Your task to perform on an android device: turn vacation reply on in the gmail app Image 0: 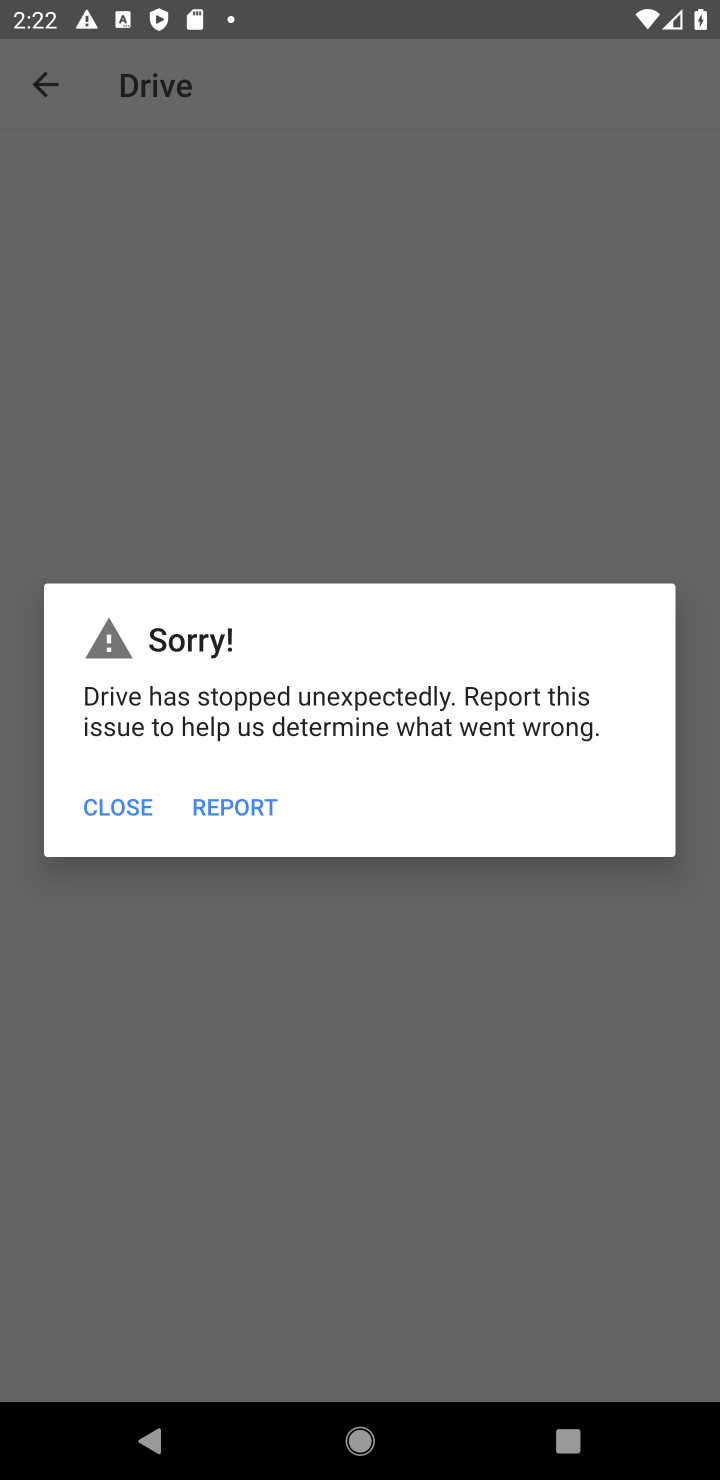
Step 0: press home button
Your task to perform on an android device: turn vacation reply on in the gmail app Image 1: 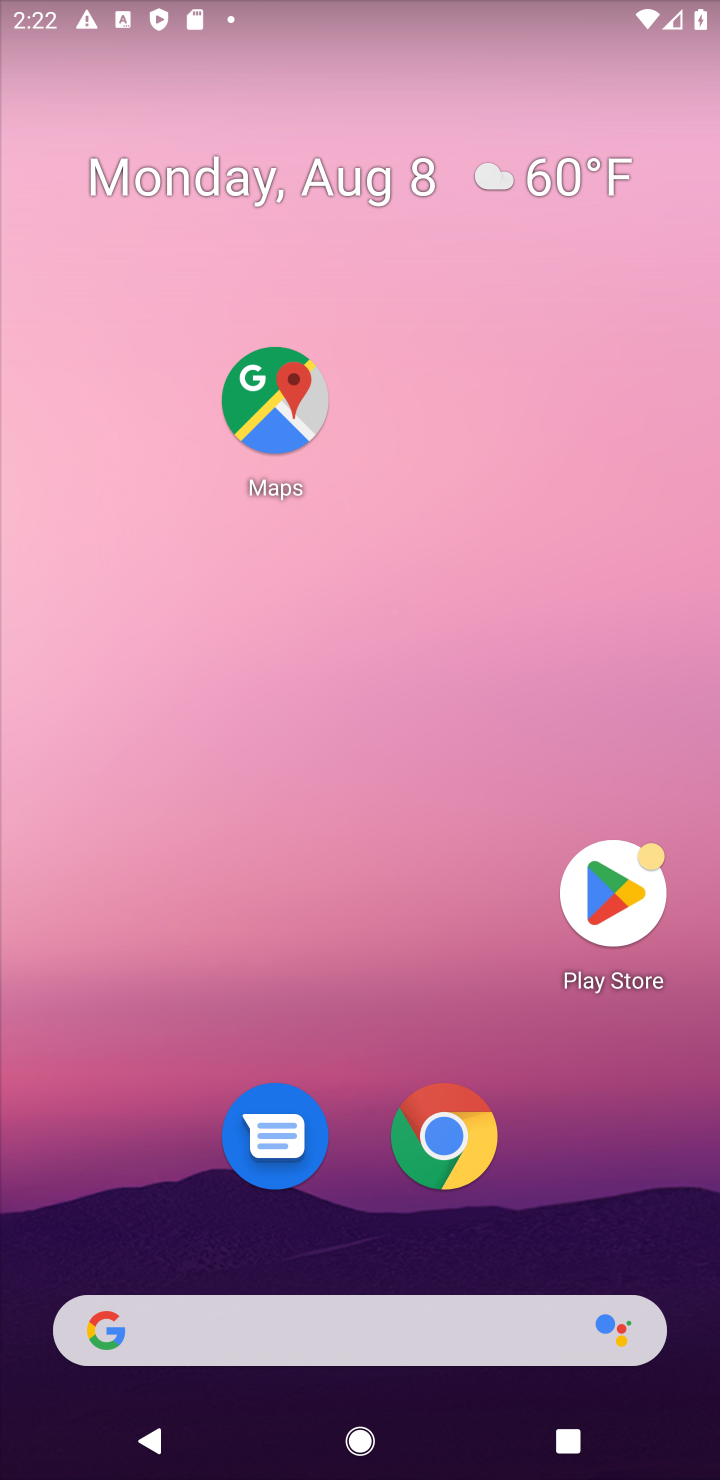
Step 1: drag from (43, 1458) to (229, 889)
Your task to perform on an android device: turn vacation reply on in the gmail app Image 2: 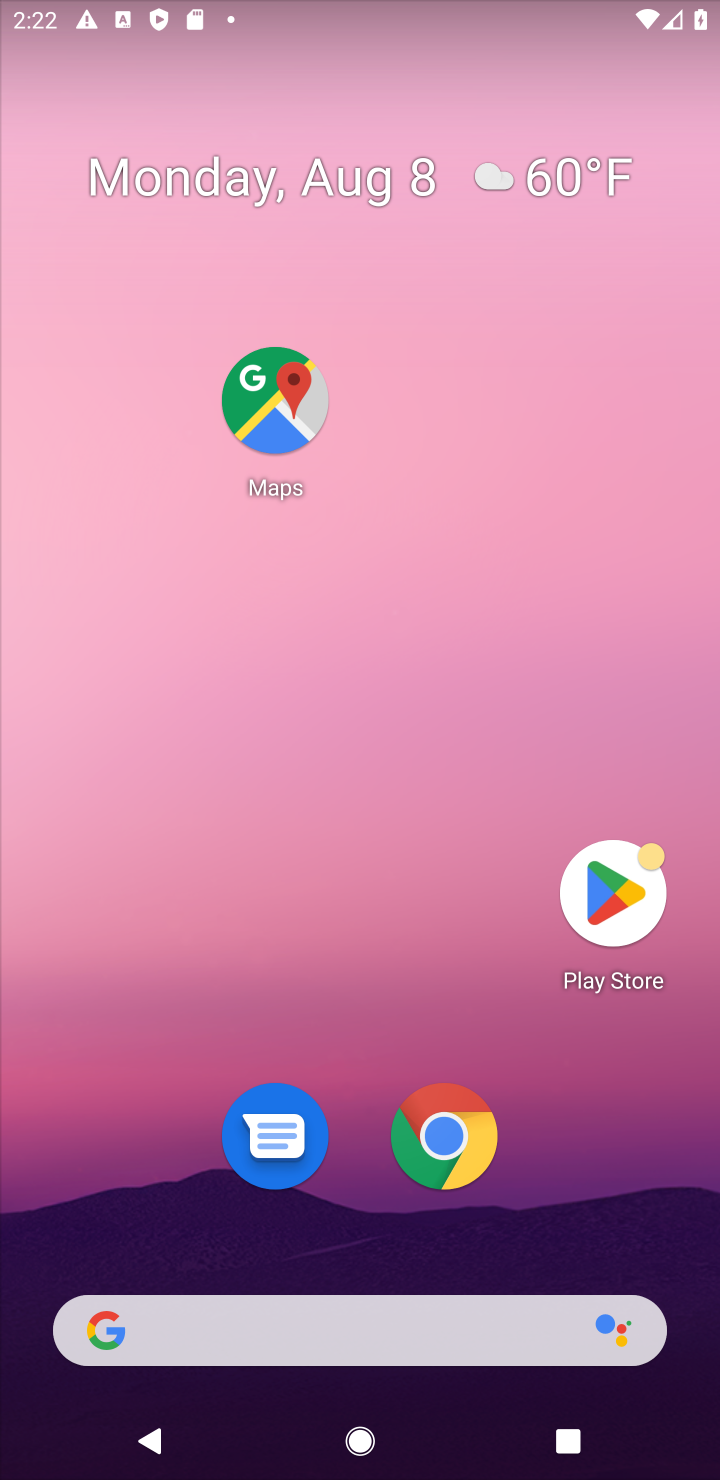
Step 2: drag from (65, 1413) to (618, 328)
Your task to perform on an android device: turn vacation reply on in the gmail app Image 3: 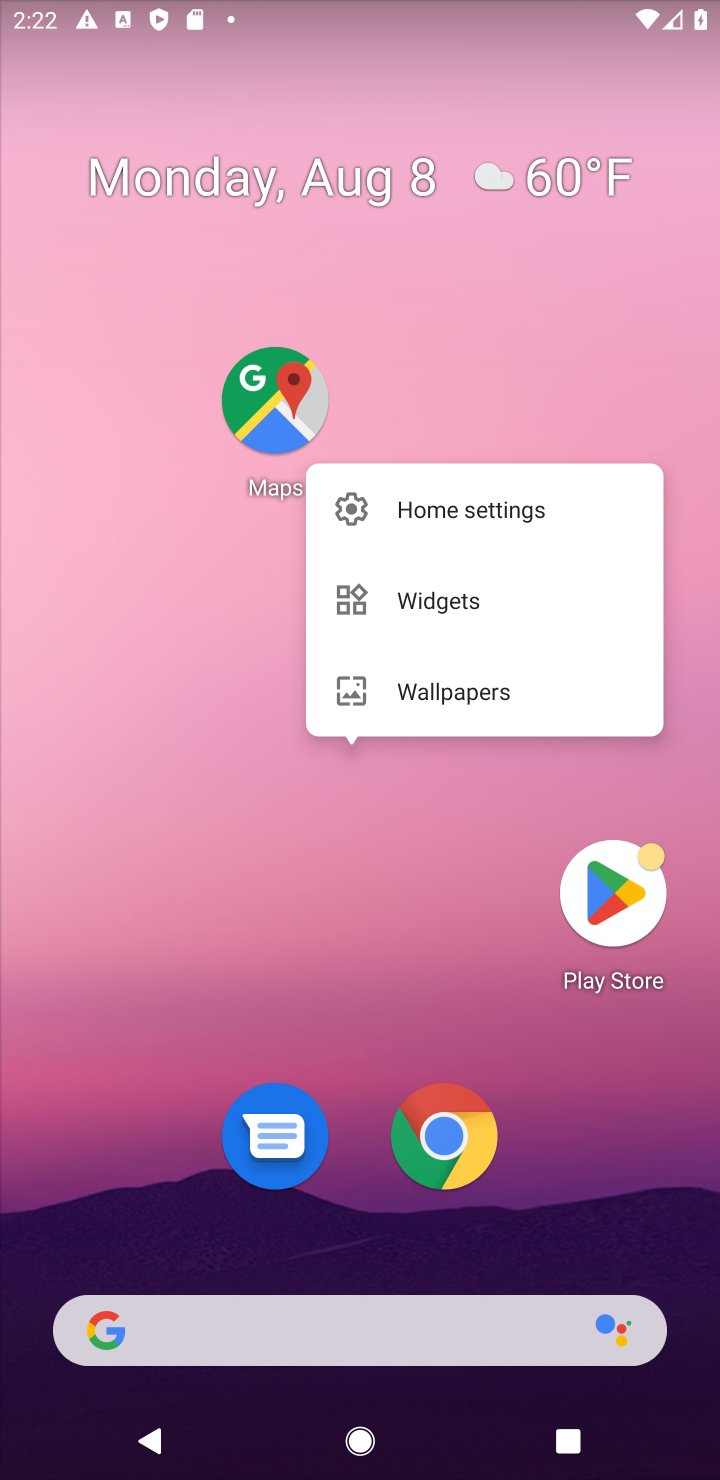
Step 3: drag from (40, 1440) to (415, 249)
Your task to perform on an android device: turn vacation reply on in the gmail app Image 4: 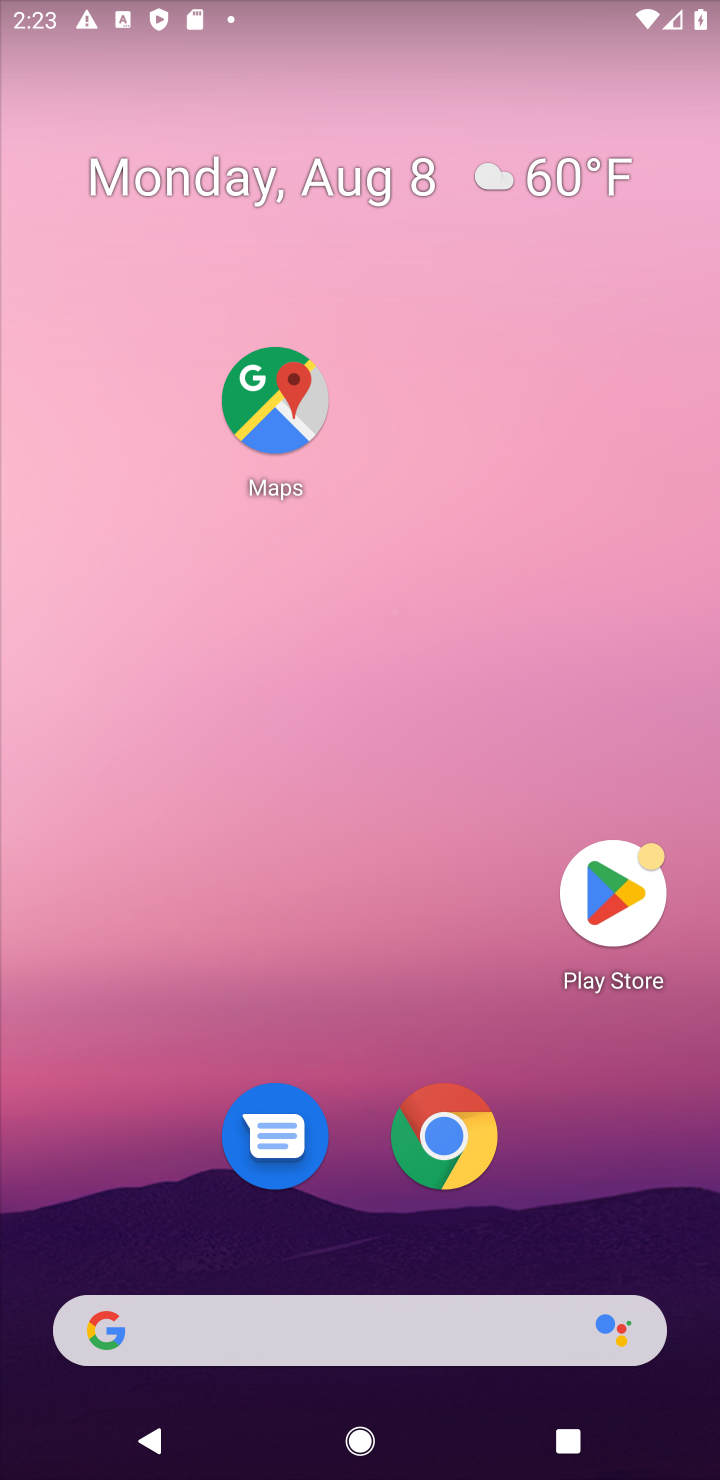
Step 4: drag from (101, 1331) to (338, 462)
Your task to perform on an android device: turn vacation reply on in the gmail app Image 5: 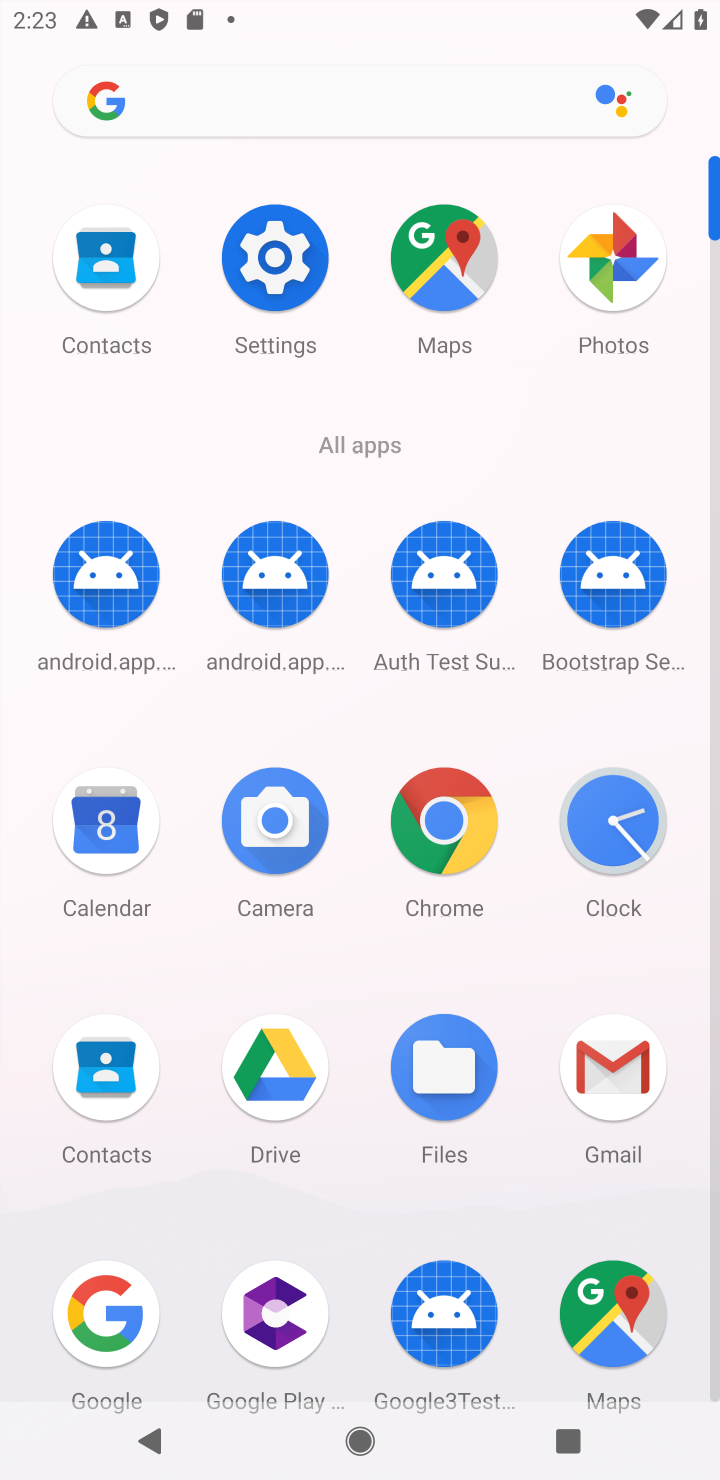
Step 5: click (614, 1064)
Your task to perform on an android device: turn vacation reply on in the gmail app Image 6: 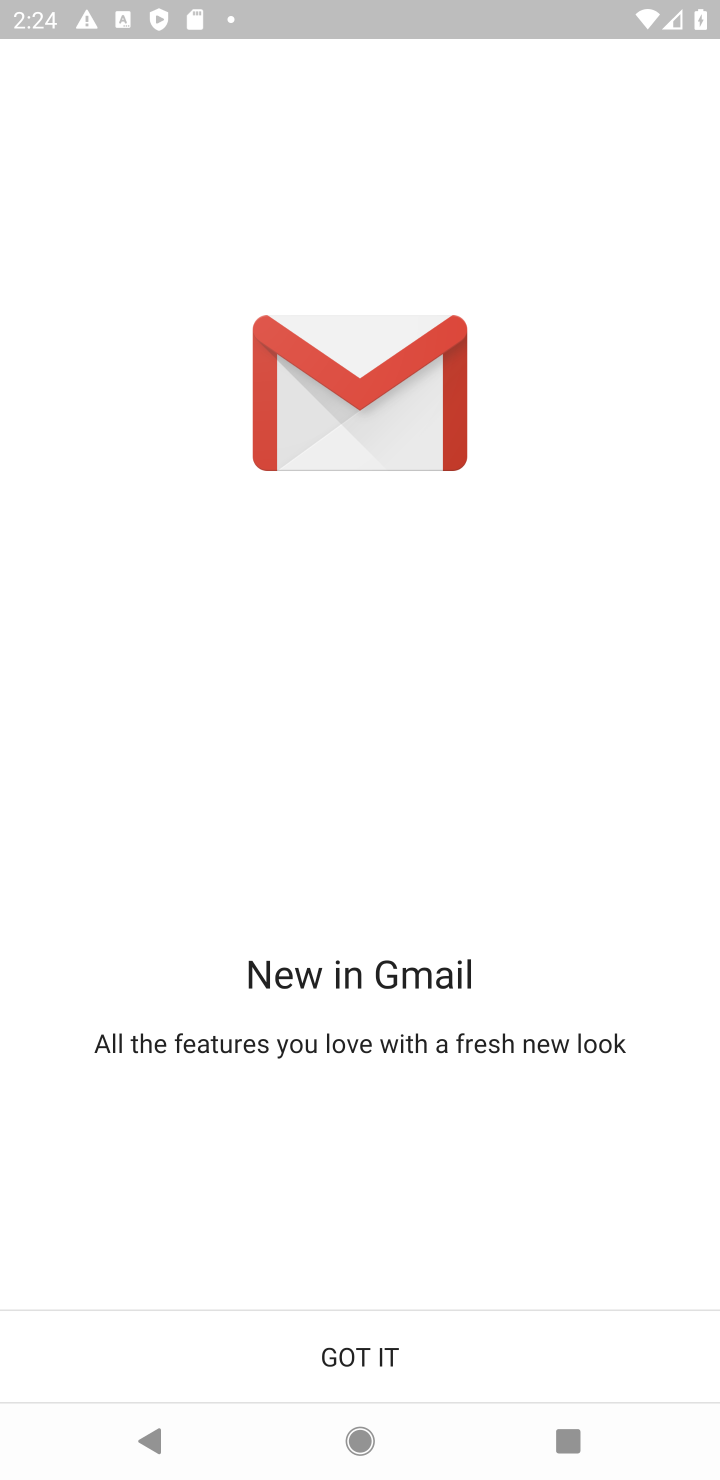
Step 6: click (379, 1369)
Your task to perform on an android device: turn vacation reply on in the gmail app Image 7: 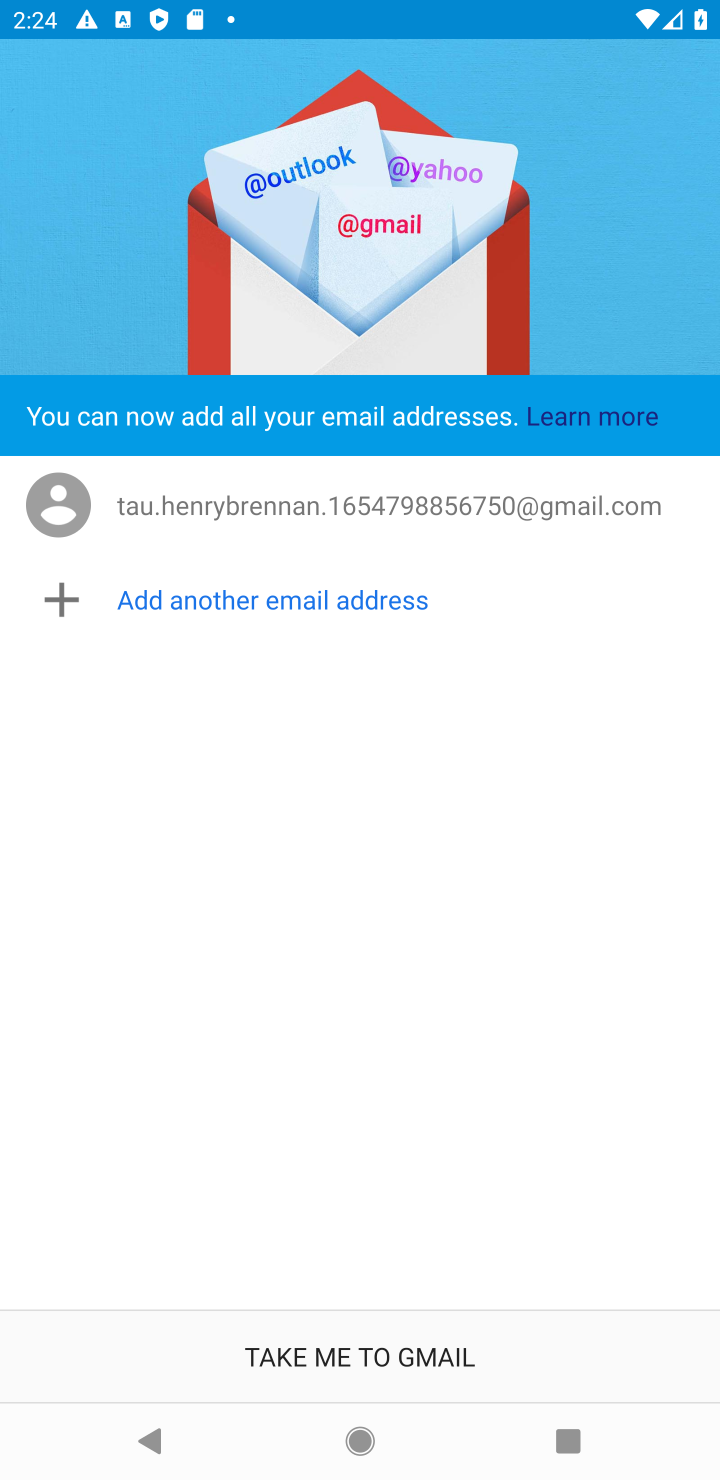
Step 7: click (368, 1369)
Your task to perform on an android device: turn vacation reply on in the gmail app Image 8: 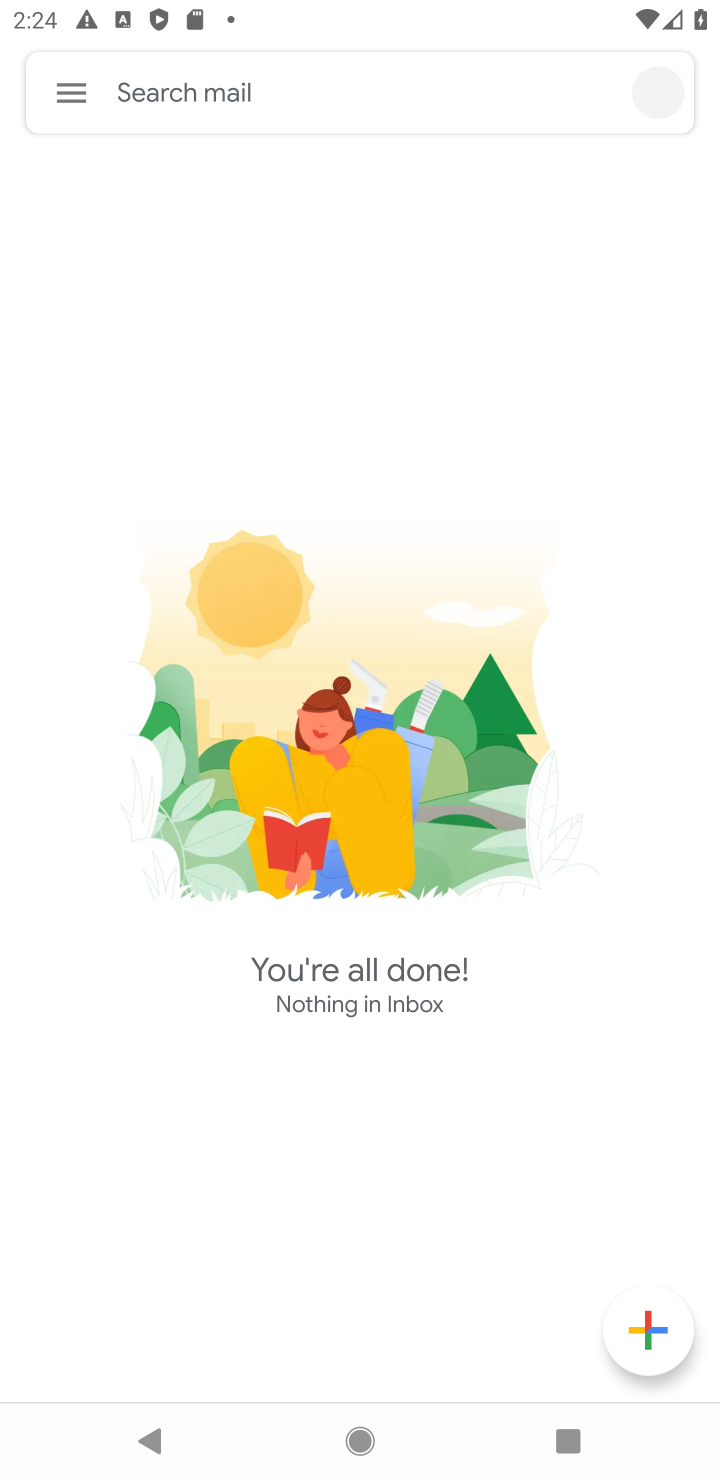
Step 8: click (72, 96)
Your task to perform on an android device: turn vacation reply on in the gmail app Image 9: 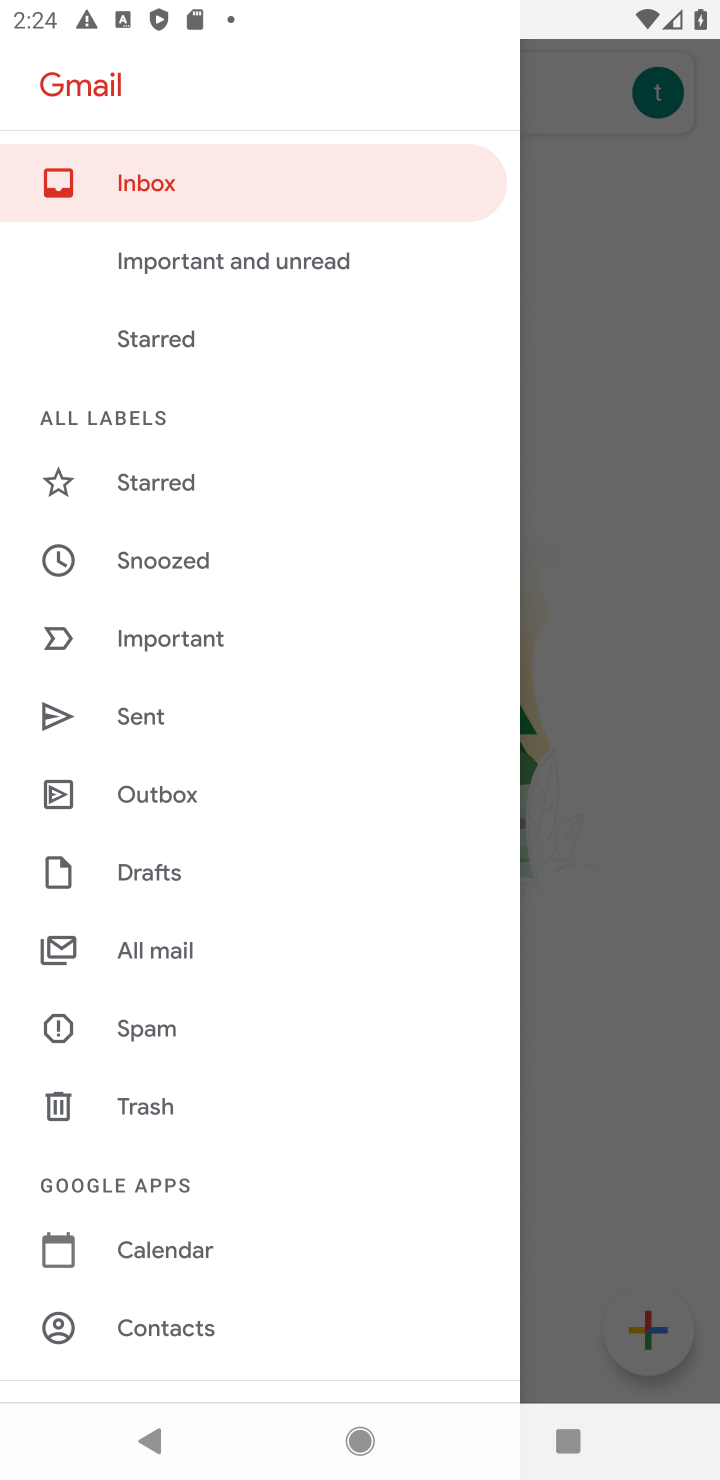
Step 9: drag from (313, 1295) to (390, 575)
Your task to perform on an android device: turn vacation reply on in the gmail app Image 10: 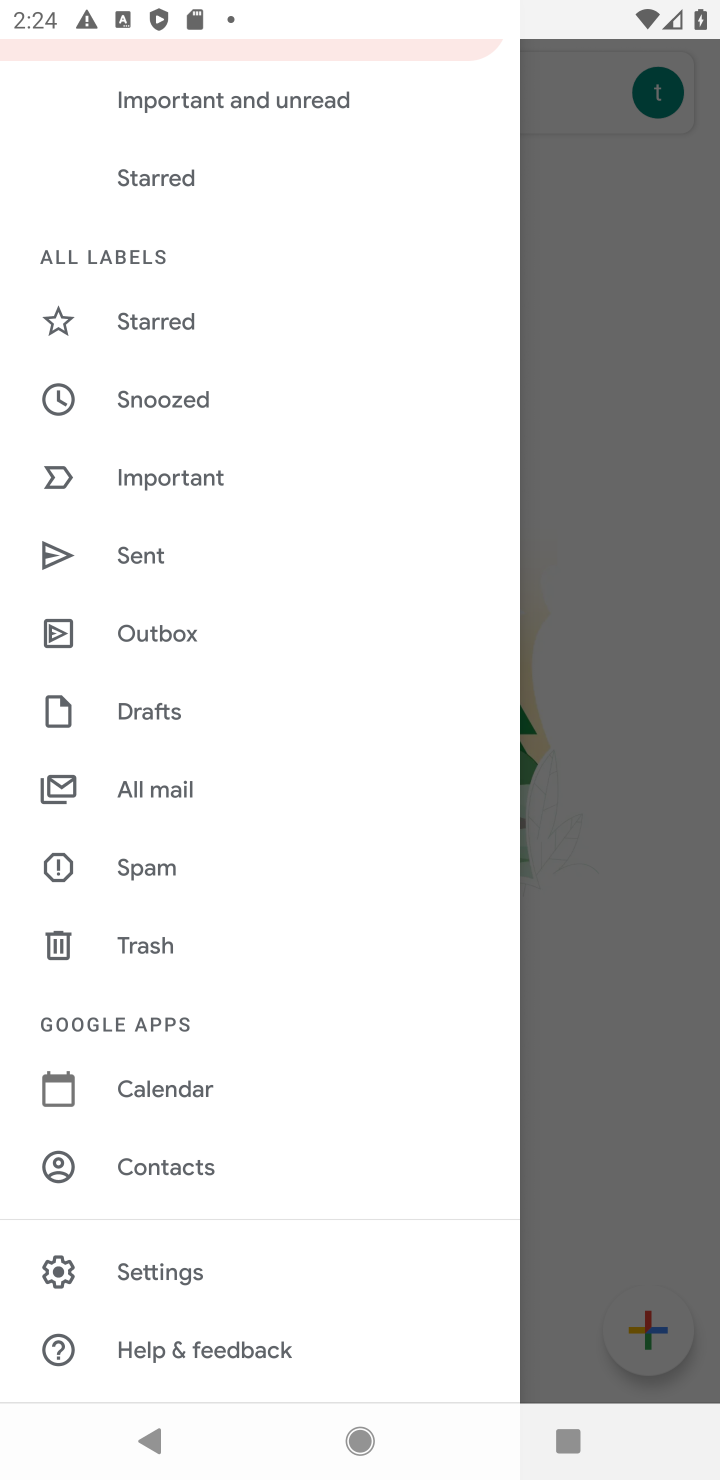
Step 10: click (184, 1265)
Your task to perform on an android device: turn vacation reply on in the gmail app Image 11: 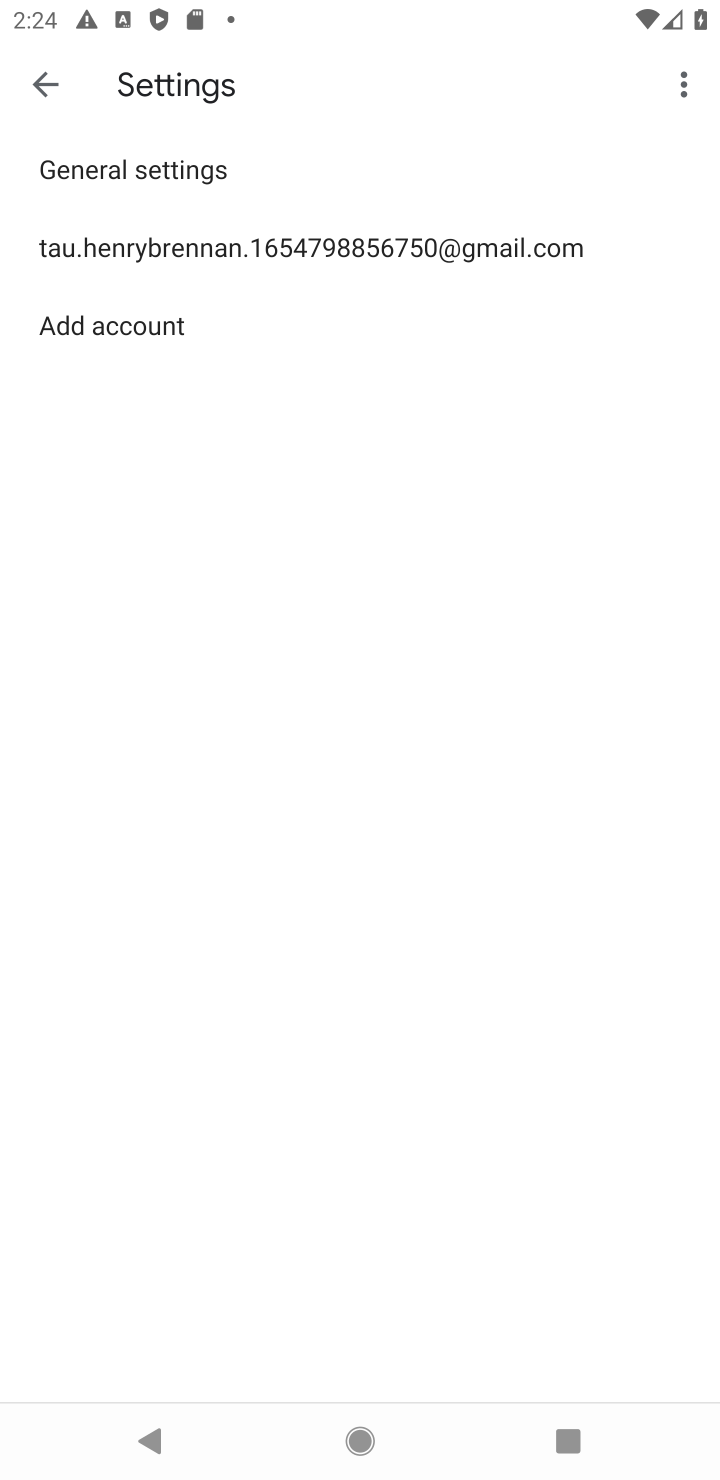
Step 11: click (247, 240)
Your task to perform on an android device: turn vacation reply on in the gmail app Image 12: 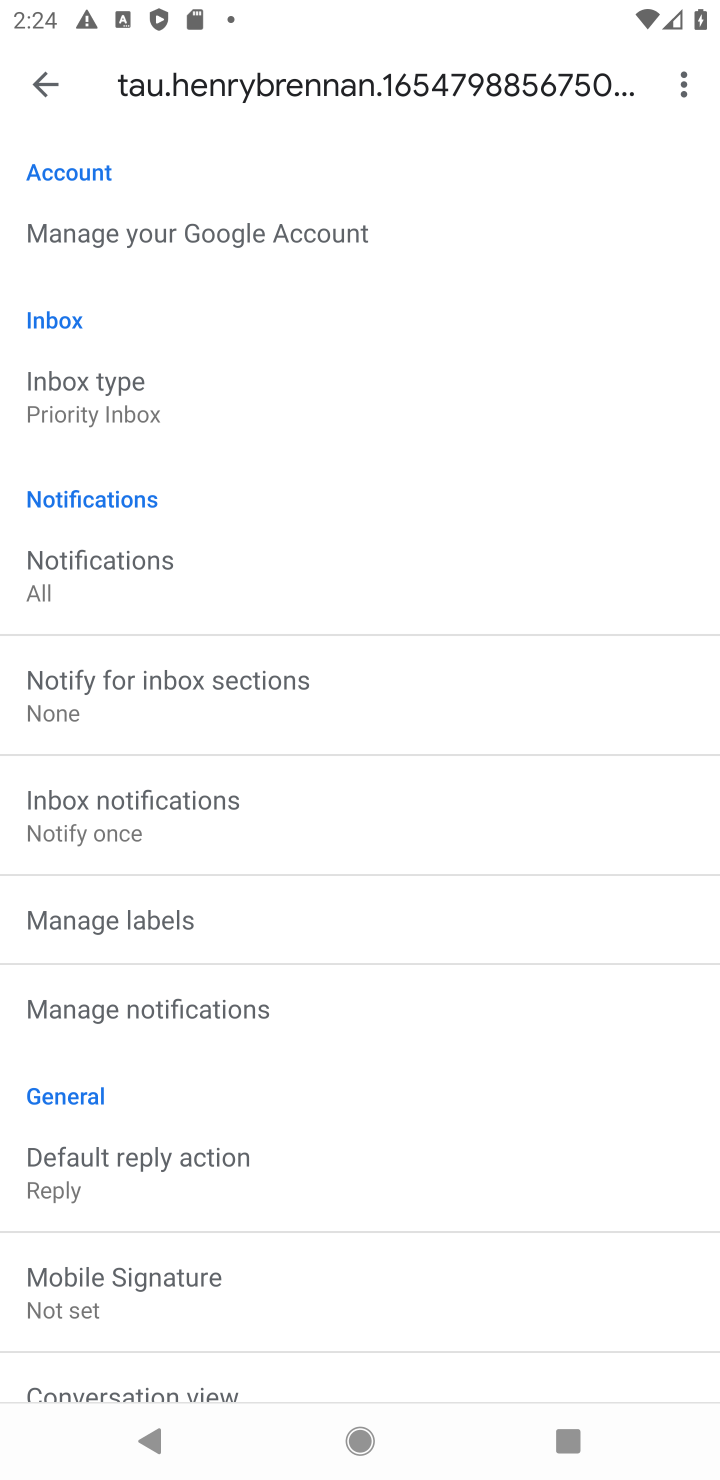
Step 12: drag from (531, 1264) to (437, 493)
Your task to perform on an android device: turn vacation reply on in the gmail app Image 13: 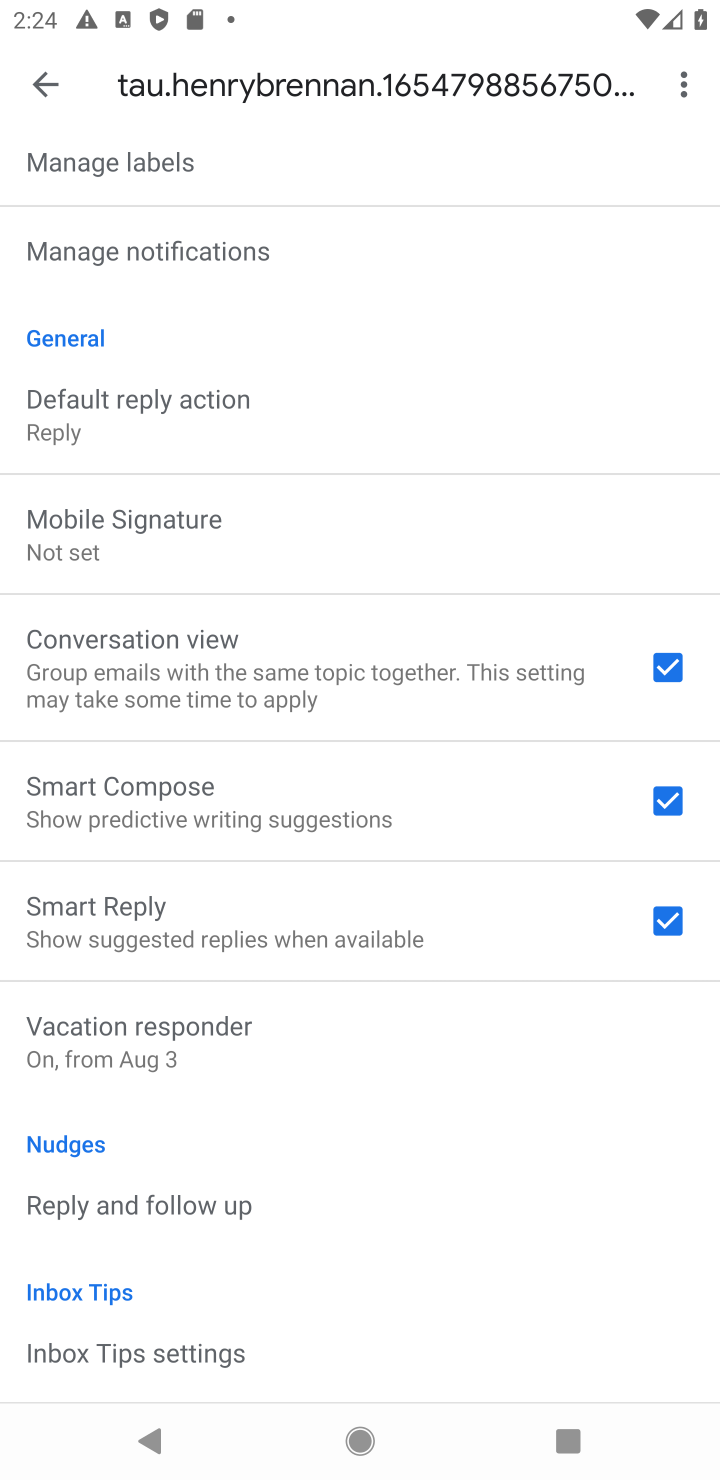
Step 13: click (177, 1039)
Your task to perform on an android device: turn vacation reply on in the gmail app Image 14: 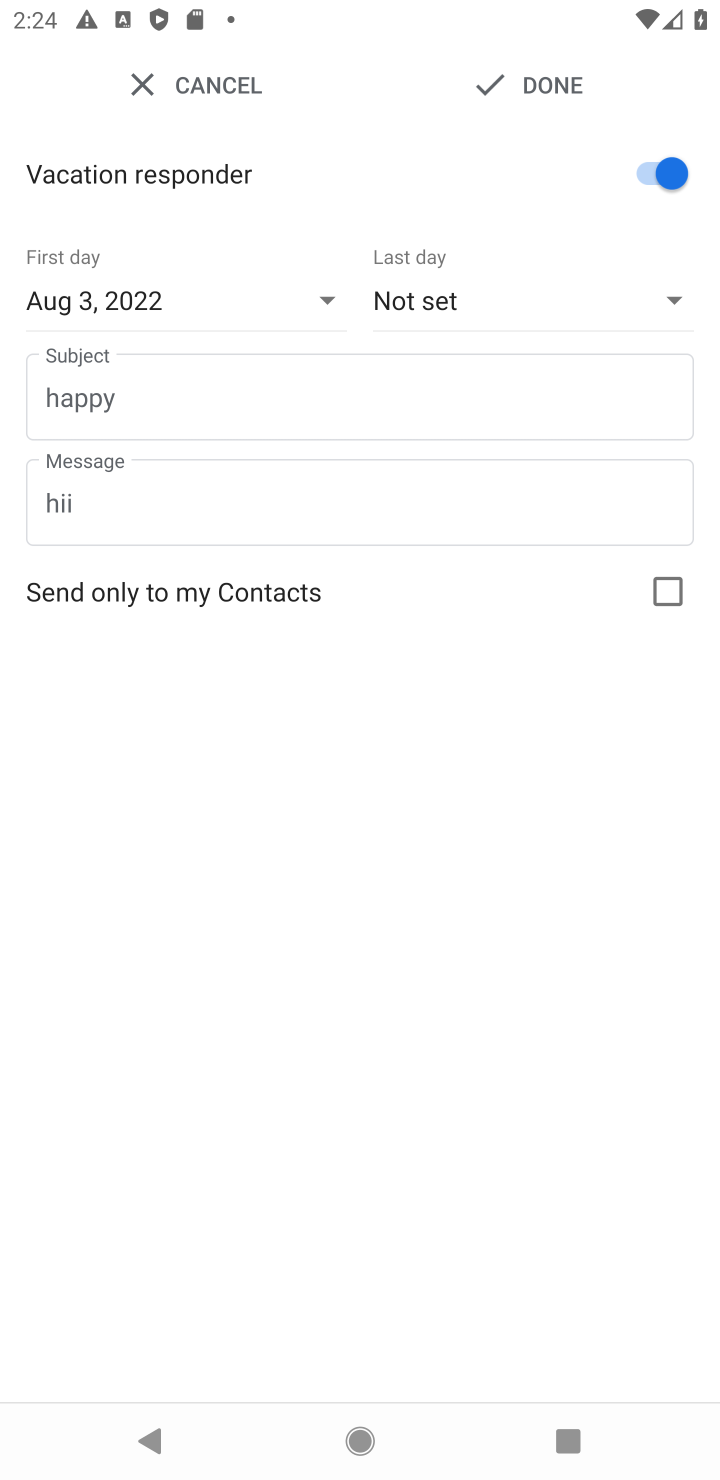
Step 14: task complete